Your task to perform on an android device: Open accessibility settings Image 0: 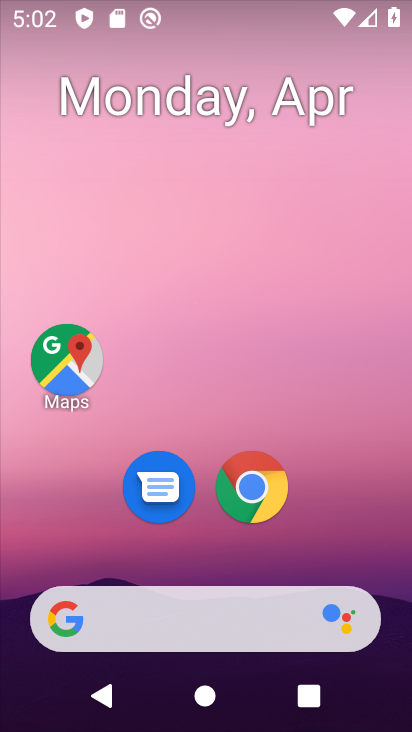
Step 0: click (272, 479)
Your task to perform on an android device: Open accessibility settings Image 1: 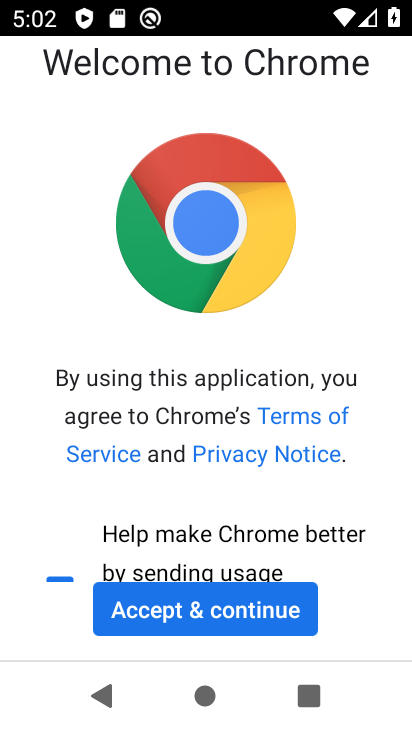
Step 1: click (257, 621)
Your task to perform on an android device: Open accessibility settings Image 2: 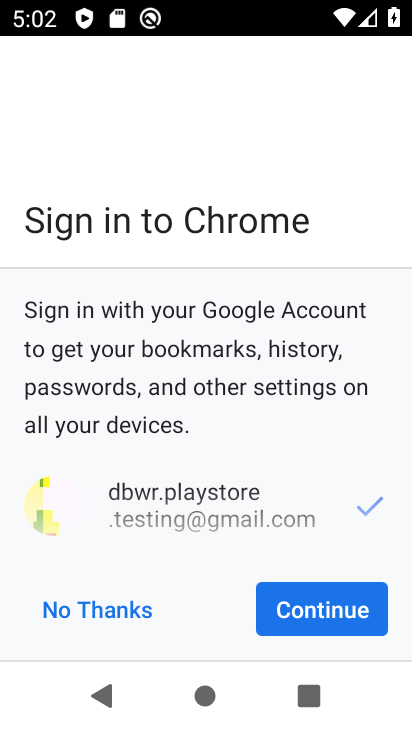
Step 2: click (296, 614)
Your task to perform on an android device: Open accessibility settings Image 3: 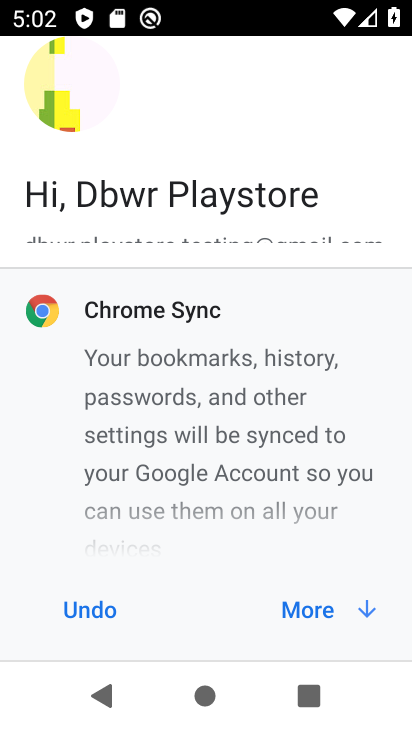
Step 3: click (296, 614)
Your task to perform on an android device: Open accessibility settings Image 4: 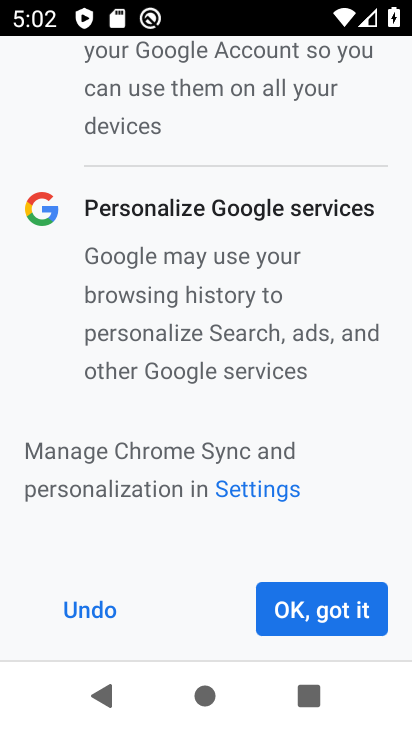
Step 4: click (296, 614)
Your task to perform on an android device: Open accessibility settings Image 5: 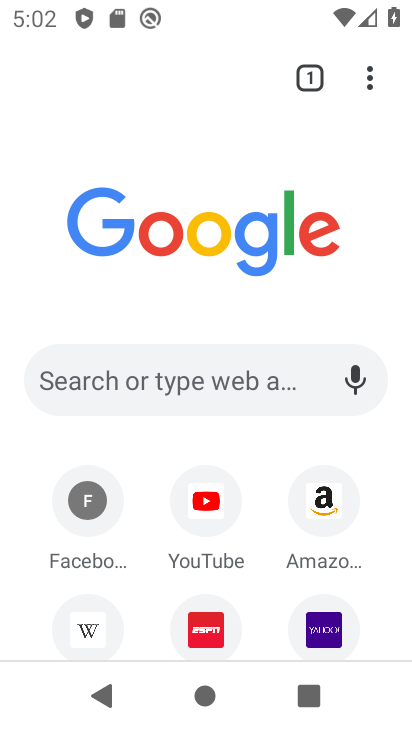
Step 5: click (374, 80)
Your task to perform on an android device: Open accessibility settings Image 6: 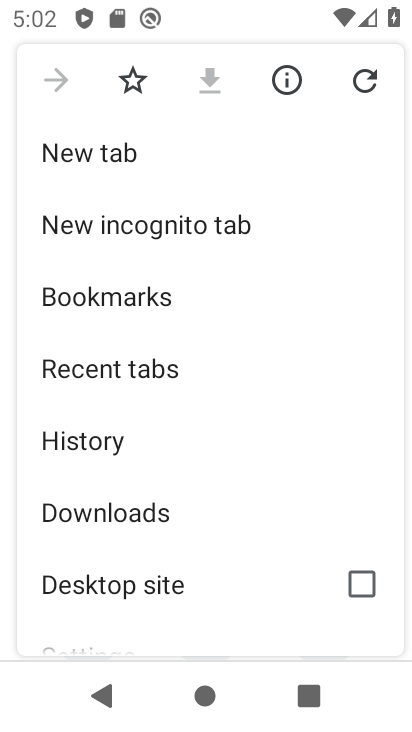
Step 6: drag from (245, 619) to (267, 115)
Your task to perform on an android device: Open accessibility settings Image 7: 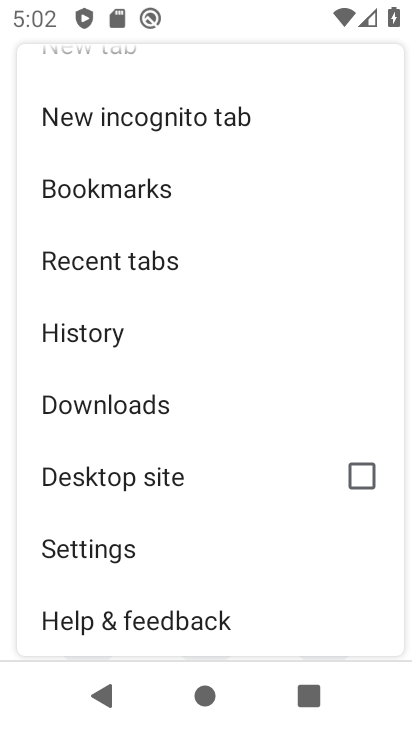
Step 7: click (172, 564)
Your task to perform on an android device: Open accessibility settings Image 8: 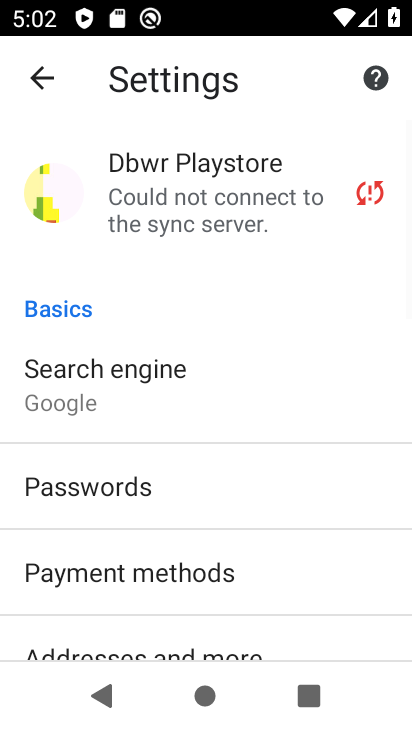
Step 8: drag from (272, 637) to (275, 85)
Your task to perform on an android device: Open accessibility settings Image 9: 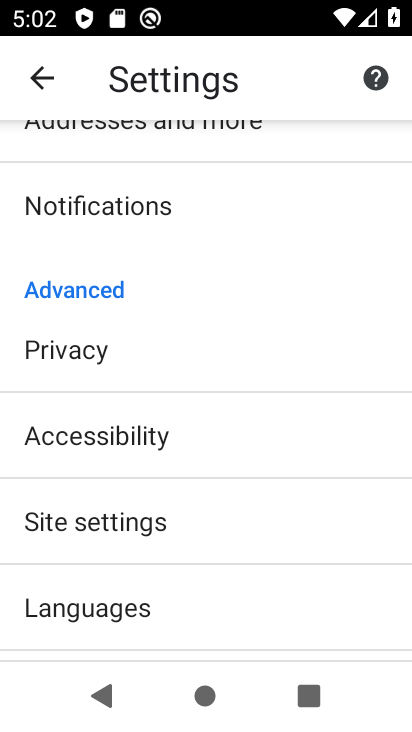
Step 9: click (238, 459)
Your task to perform on an android device: Open accessibility settings Image 10: 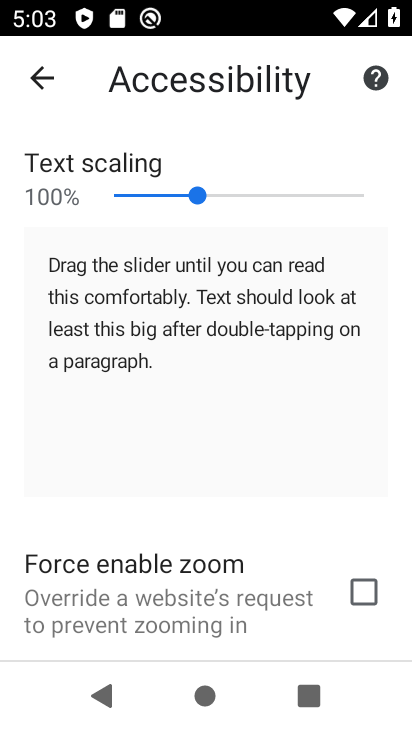
Step 10: task complete